Your task to perform on an android device: Go to notification settings Image 0: 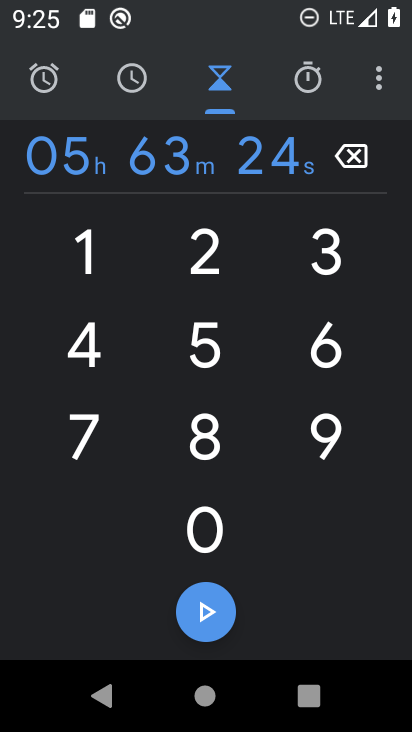
Step 0: press back button
Your task to perform on an android device: Go to notification settings Image 1: 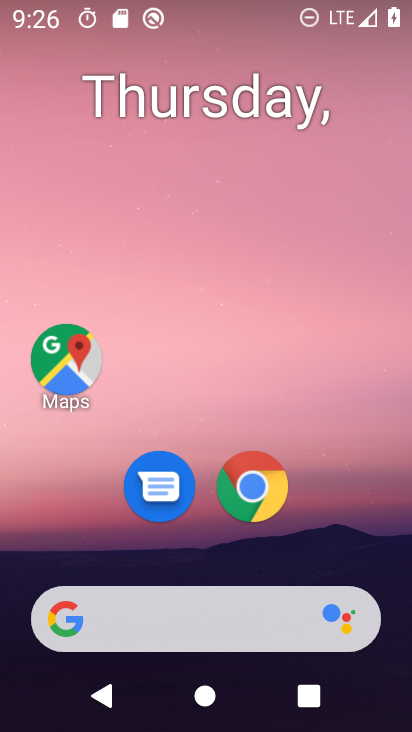
Step 1: drag from (91, 568) to (207, 37)
Your task to perform on an android device: Go to notification settings Image 2: 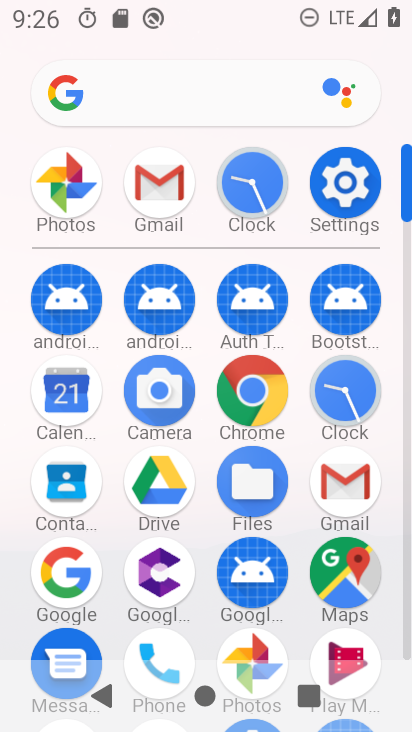
Step 2: click (345, 187)
Your task to perform on an android device: Go to notification settings Image 3: 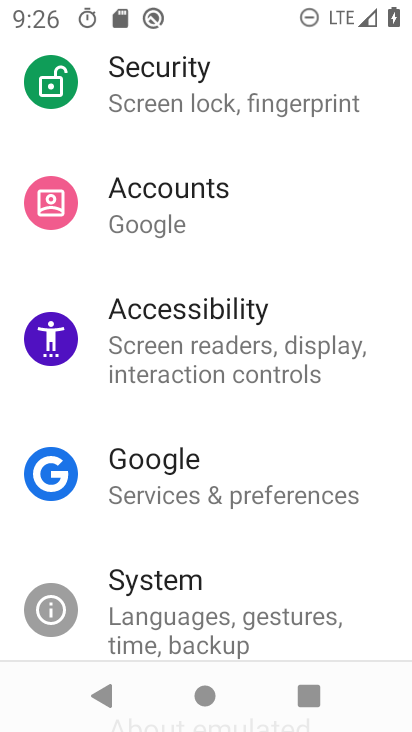
Step 3: drag from (299, 148) to (218, 703)
Your task to perform on an android device: Go to notification settings Image 4: 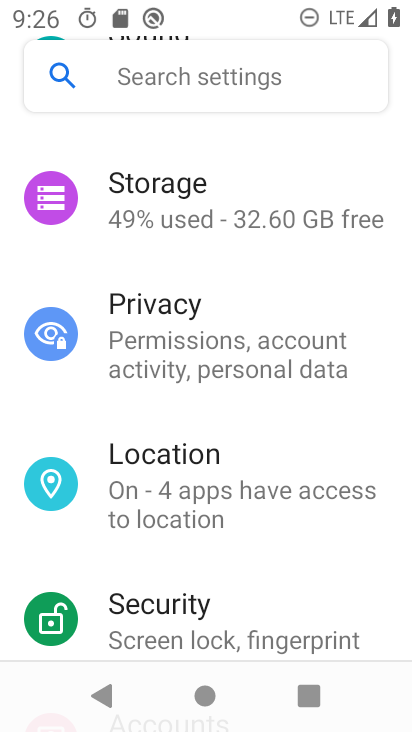
Step 4: drag from (250, 204) to (164, 711)
Your task to perform on an android device: Go to notification settings Image 5: 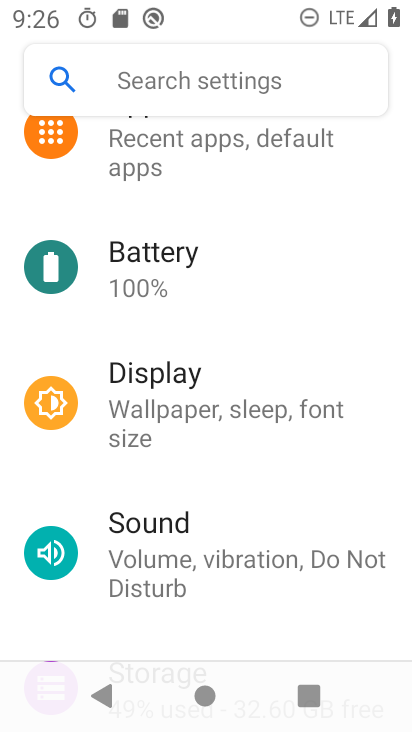
Step 5: drag from (246, 173) to (159, 729)
Your task to perform on an android device: Go to notification settings Image 6: 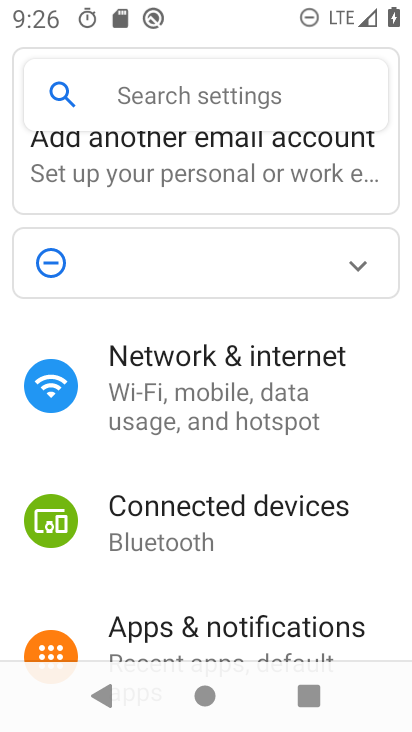
Step 6: click (210, 621)
Your task to perform on an android device: Go to notification settings Image 7: 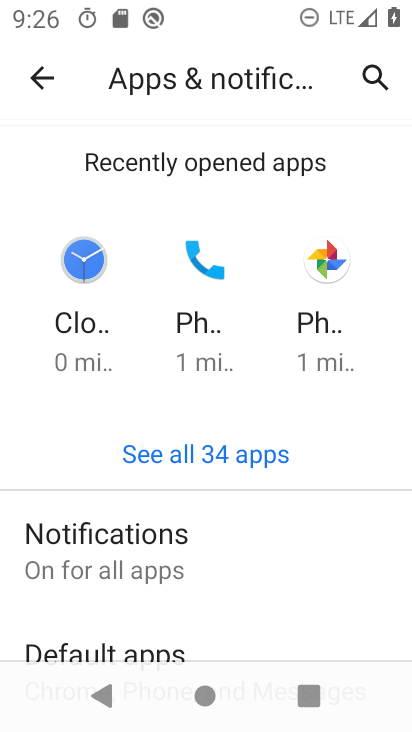
Step 7: task complete